Your task to perform on an android device: open a new tab in the chrome app Image 0: 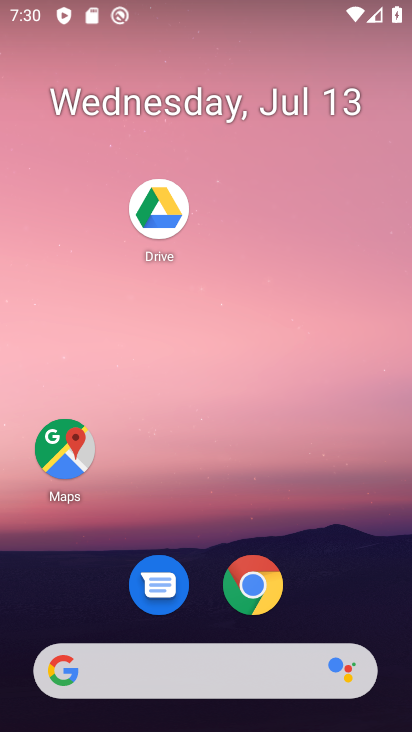
Step 0: click (255, 595)
Your task to perform on an android device: open a new tab in the chrome app Image 1: 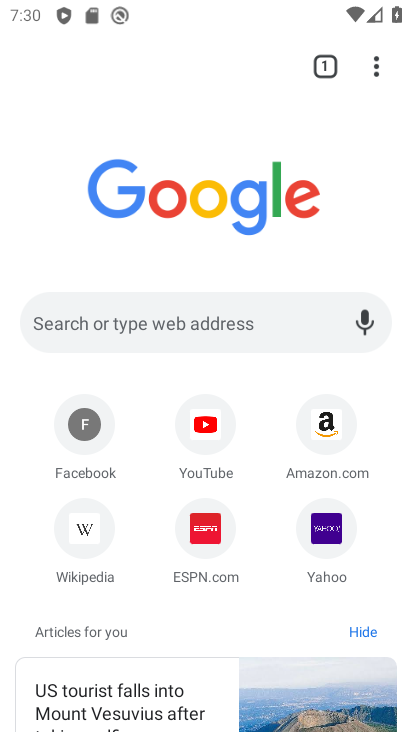
Step 1: task complete